Your task to perform on an android device: Open the web browser Image 0: 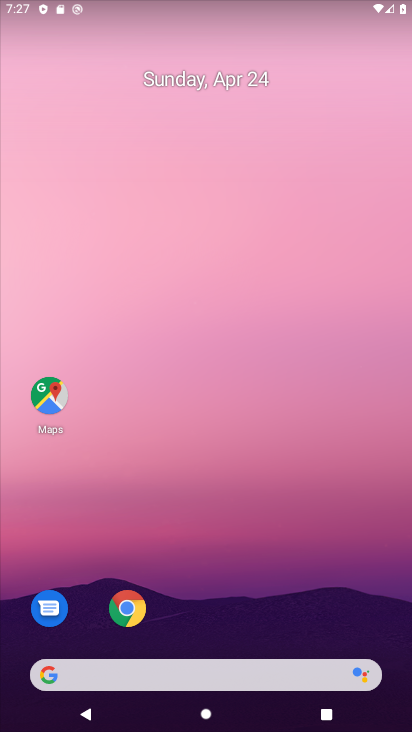
Step 0: click (134, 605)
Your task to perform on an android device: Open the web browser Image 1: 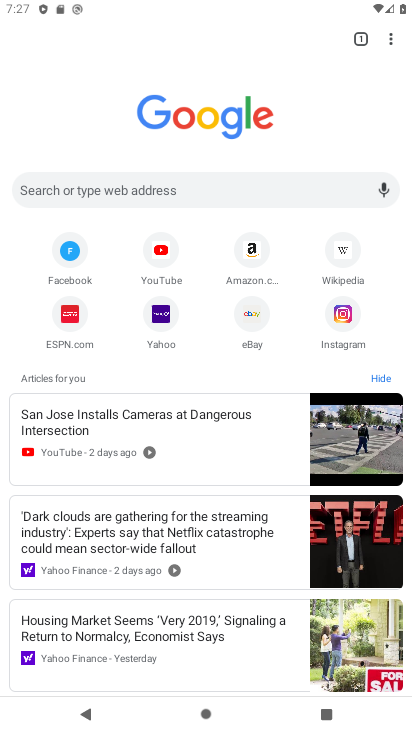
Step 1: task complete